Your task to perform on an android device: turn off translation in the chrome app Image 0: 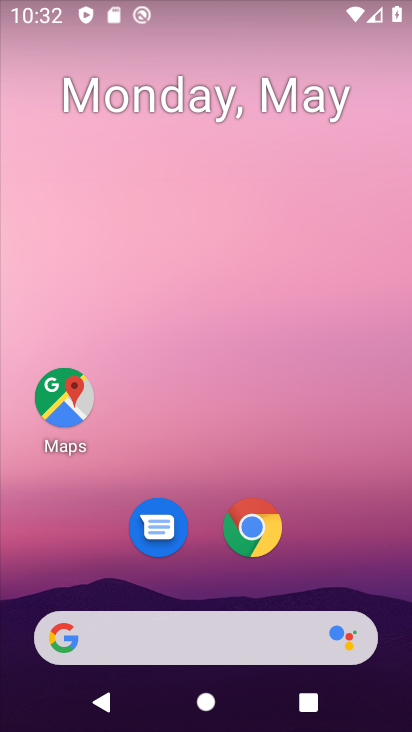
Step 0: click (266, 529)
Your task to perform on an android device: turn off translation in the chrome app Image 1: 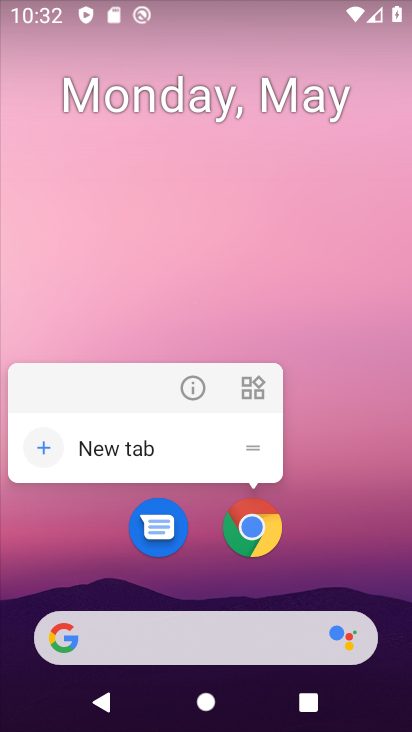
Step 1: click (266, 529)
Your task to perform on an android device: turn off translation in the chrome app Image 2: 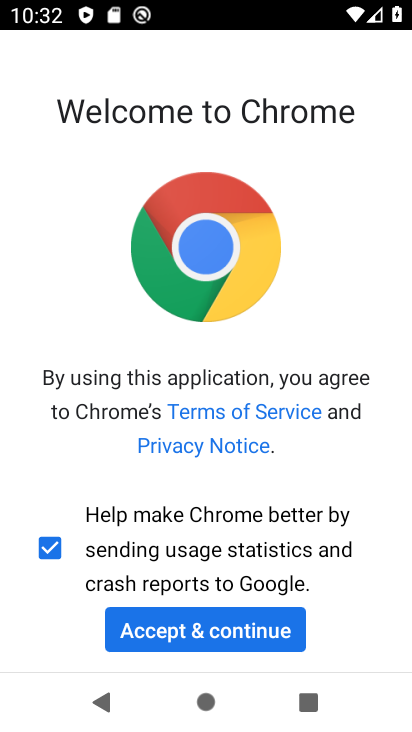
Step 2: click (283, 627)
Your task to perform on an android device: turn off translation in the chrome app Image 3: 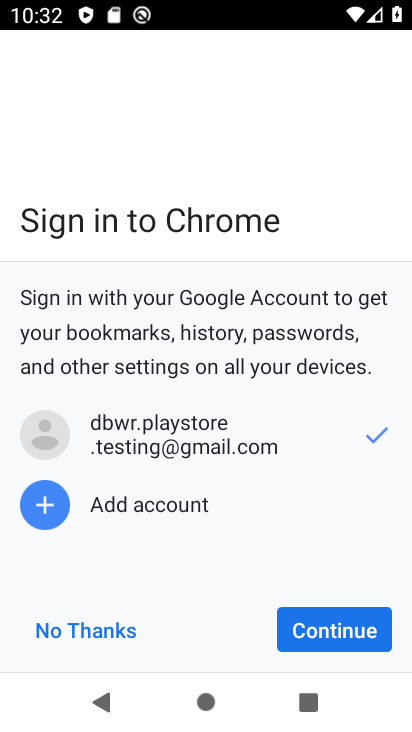
Step 3: click (309, 625)
Your task to perform on an android device: turn off translation in the chrome app Image 4: 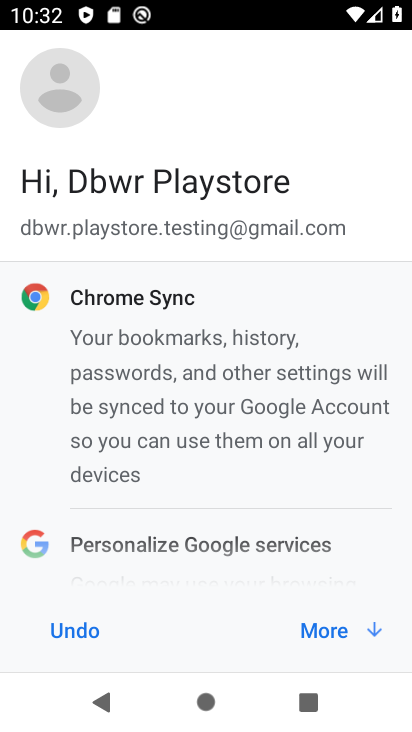
Step 4: click (309, 625)
Your task to perform on an android device: turn off translation in the chrome app Image 5: 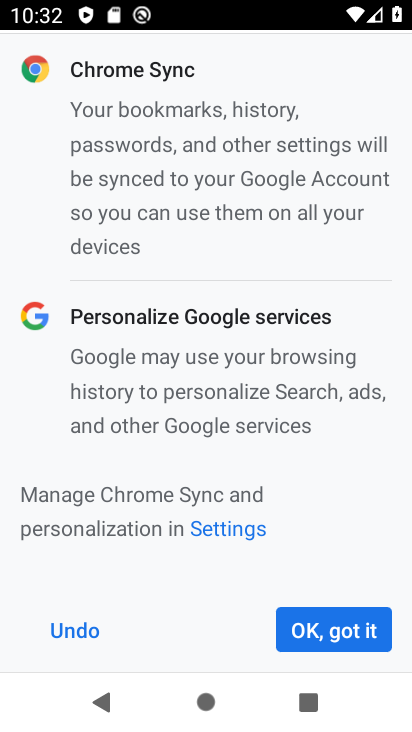
Step 5: click (309, 625)
Your task to perform on an android device: turn off translation in the chrome app Image 6: 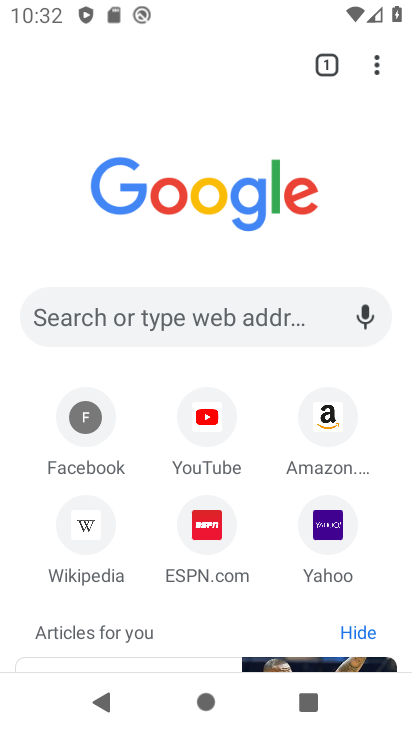
Step 6: click (369, 72)
Your task to perform on an android device: turn off translation in the chrome app Image 7: 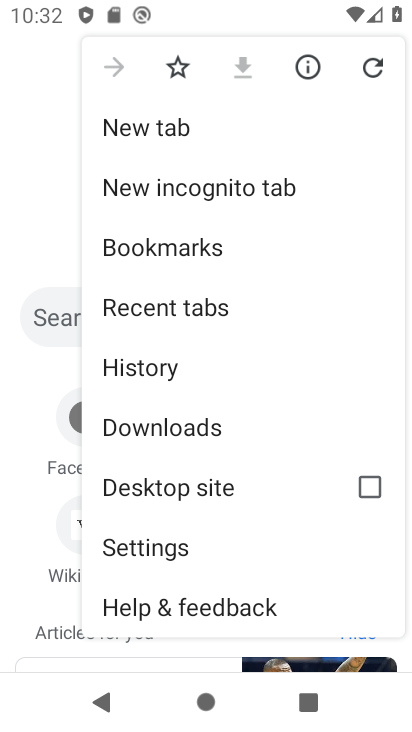
Step 7: click (167, 542)
Your task to perform on an android device: turn off translation in the chrome app Image 8: 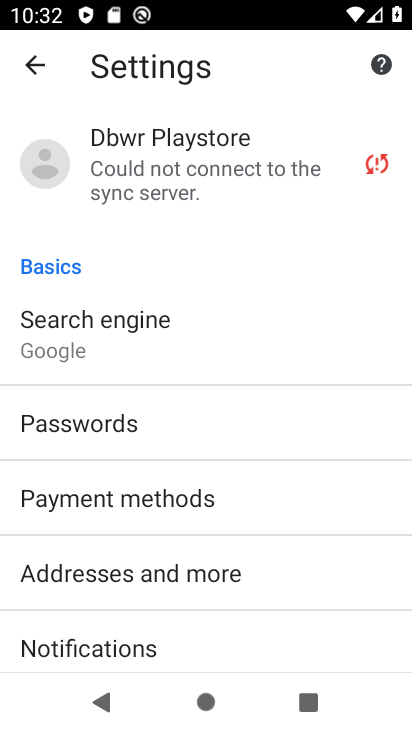
Step 8: drag from (188, 660) to (214, 97)
Your task to perform on an android device: turn off translation in the chrome app Image 9: 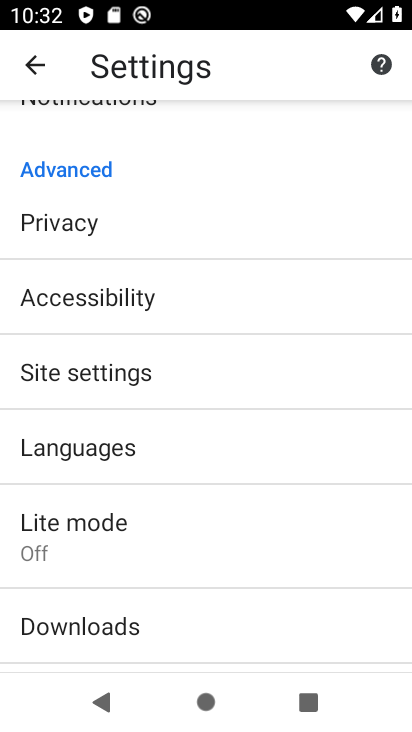
Step 9: click (204, 450)
Your task to perform on an android device: turn off translation in the chrome app Image 10: 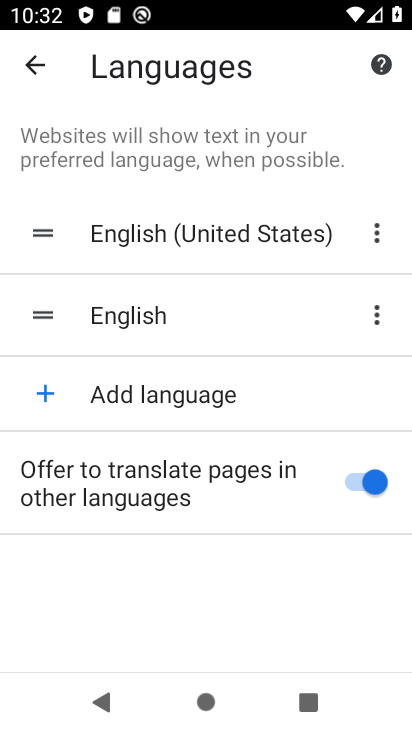
Step 10: click (346, 474)
Your task to perform on an android device: turn off translation in the chrome app Image 11: 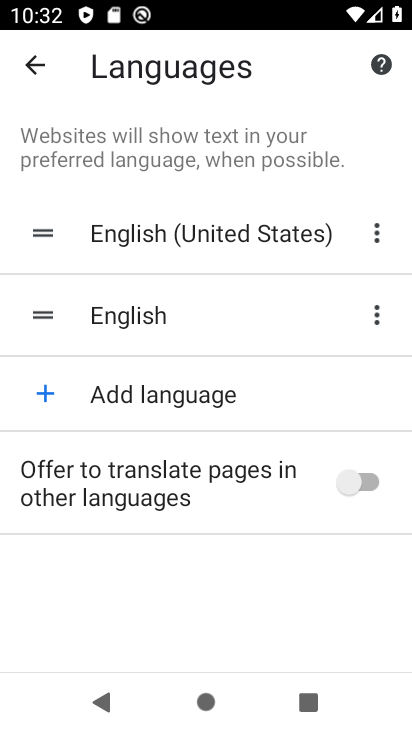
Step 11: task complete